Your task to perform on an android device: Do I have any events this weekend? Image 0: 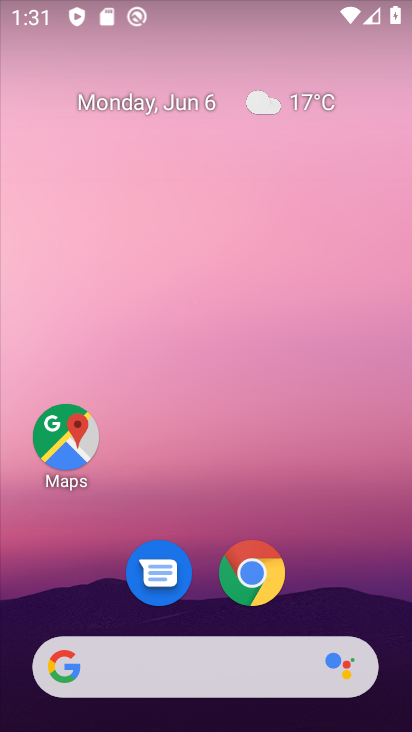
Step 0: drag from (216, 609) to (262, 109)
Your task to perform on an android device: Do I have any events this weekend? Image 1: 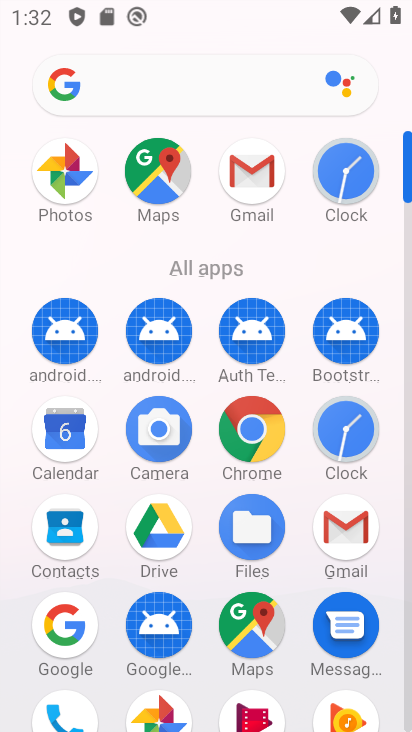
Step 1: click (57, 439)
Your task to perform on an android device: Do I have any events this weekend? Image 2: 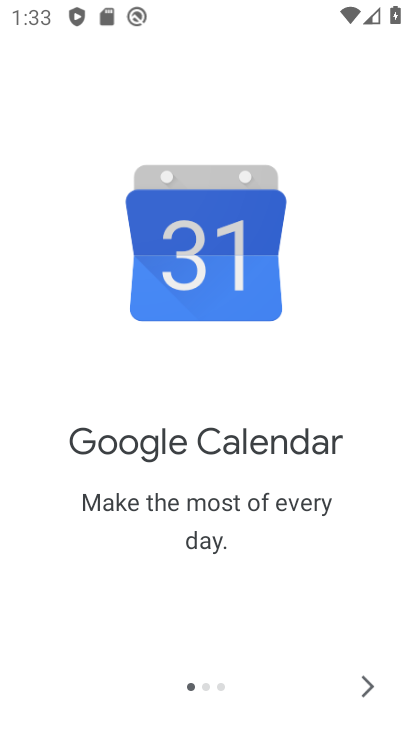
Step 2: click (373, 664)
Your task to perform on an android device: Do I have any events this weekend? Image 3: 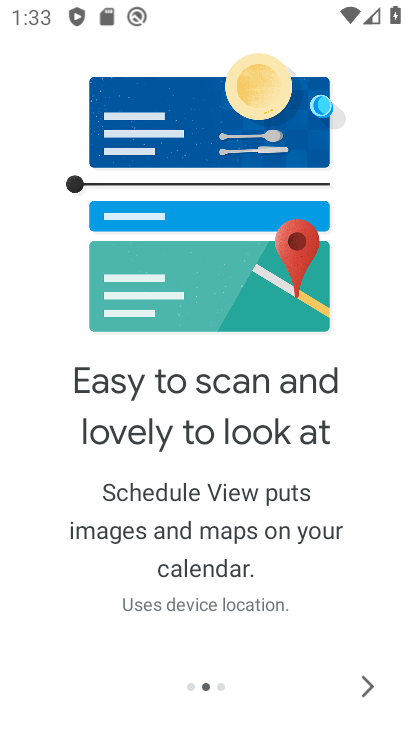
Step 3: click (342, 668)
Your task to perform on an android device: Do I have any events this weekend? Image 4: 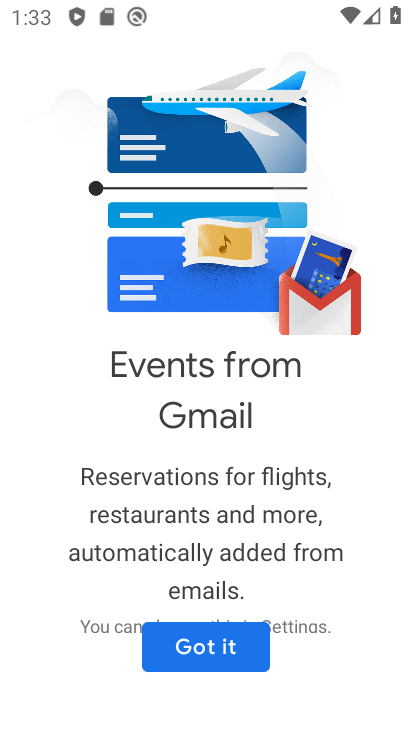
Step 4: click (197, 654)
Your task to perform on an android device: Do I have any events this weekend? Image 5: 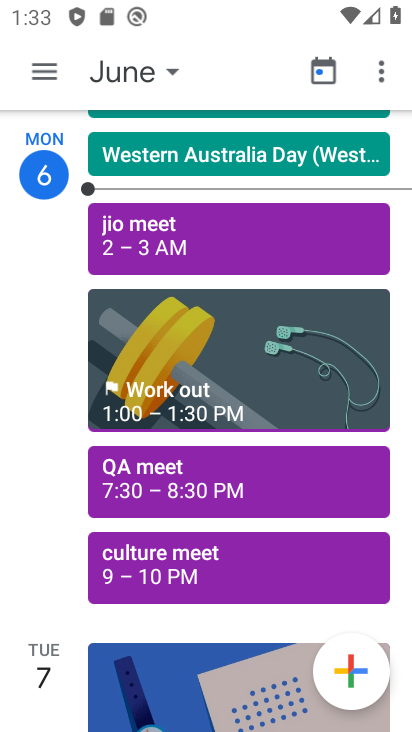
Step 5: drag from (196, 659) to (247, 125)
Your task to perform on an android device: Do I have any events this weekend? Image 6: 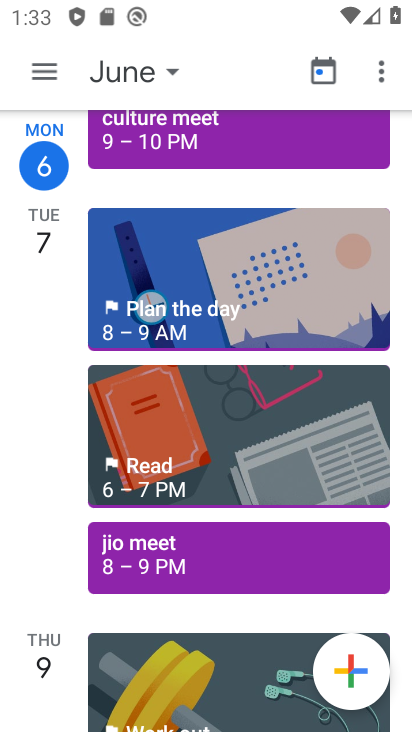
Step 6: drag from (155, 634) to (238, 73)
Your task to perform on an android device: Do I have any events this weekend? Image 7: 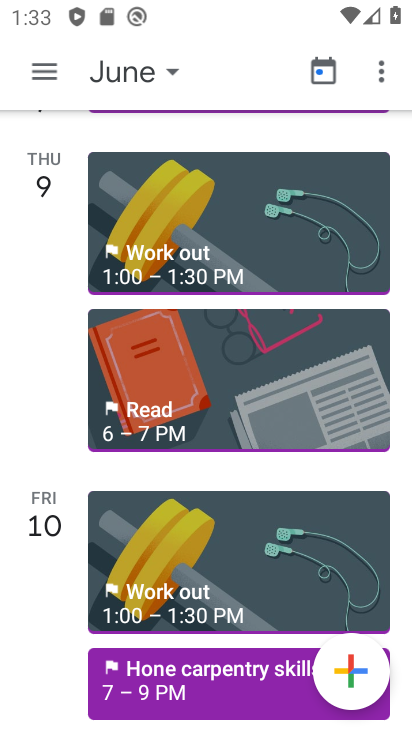
Step 7: drag from (184, 632) to (255, 122)
Your task to perform on an android device: Do I have any events this weekend? Image 8: 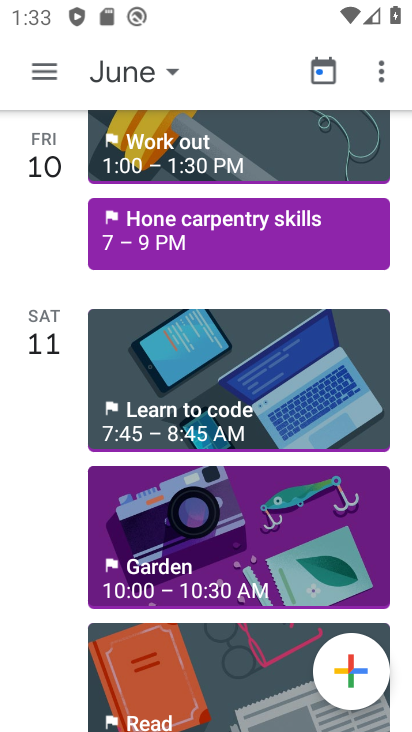
Step 8: click (145, 551)
Your task to perform on an android device: Do I have any events this weekend? Image 9: 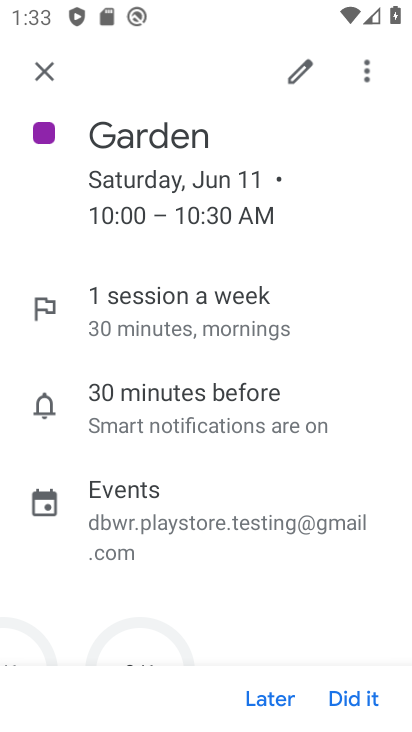
Step 9: task complete